Your task to perform on an android device: Go to Maps Image 0: 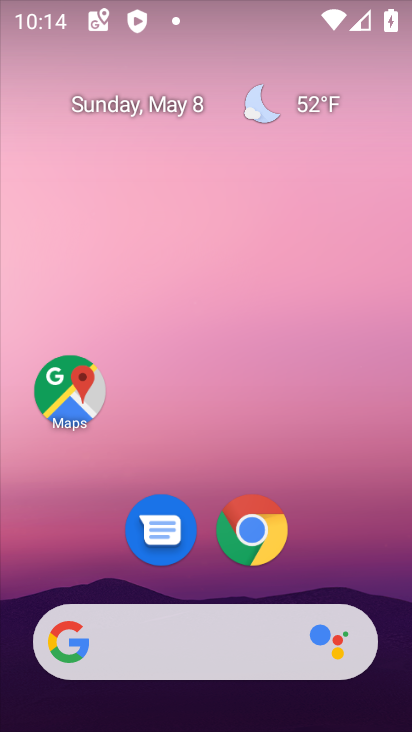
Step 0: drag from (348, 571) to (366, 122)
Your task to perform on an android device: Go to Maps Image 1: 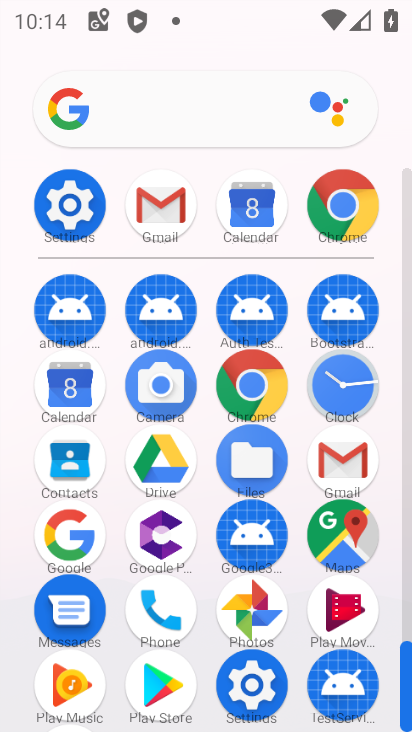
Step 1: click (323, 552)
Your task to perform on an android device: Go to Maps Image 2: 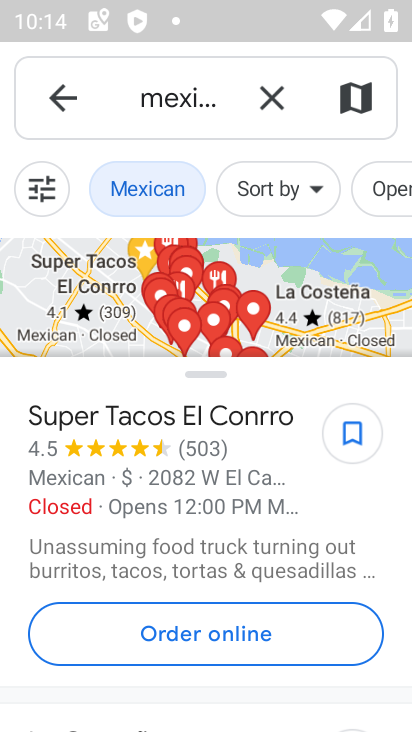
Step 2: click (256, 102)
Your task to perform on an android device: Go to Maps Image 3: 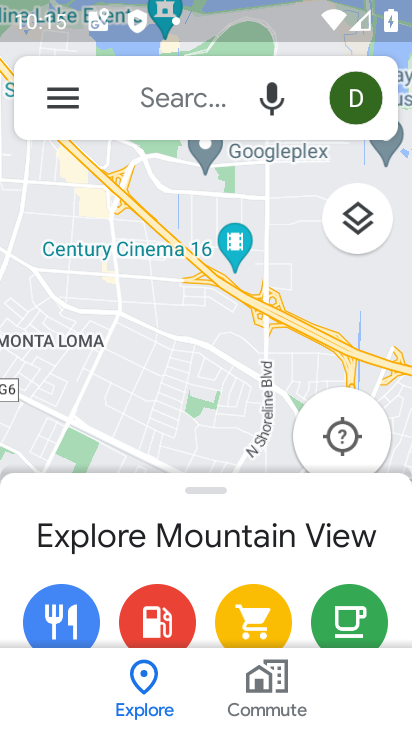
Step 3: task complete